Your task to perform on an android device: Open the settings Image 0: 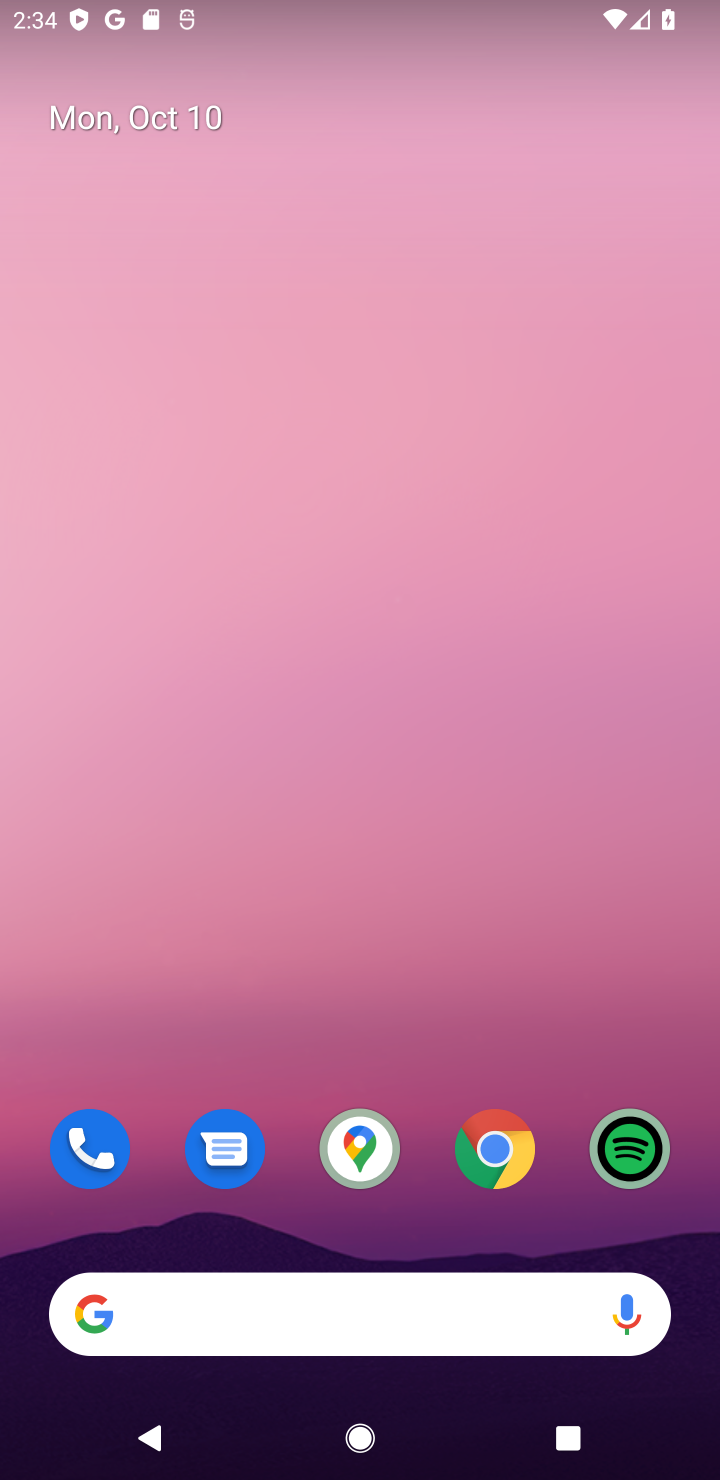
Step 0: drag from (415, 1222) to (363, 9)
Your task to perform on an android device: Open the settings Image 1: 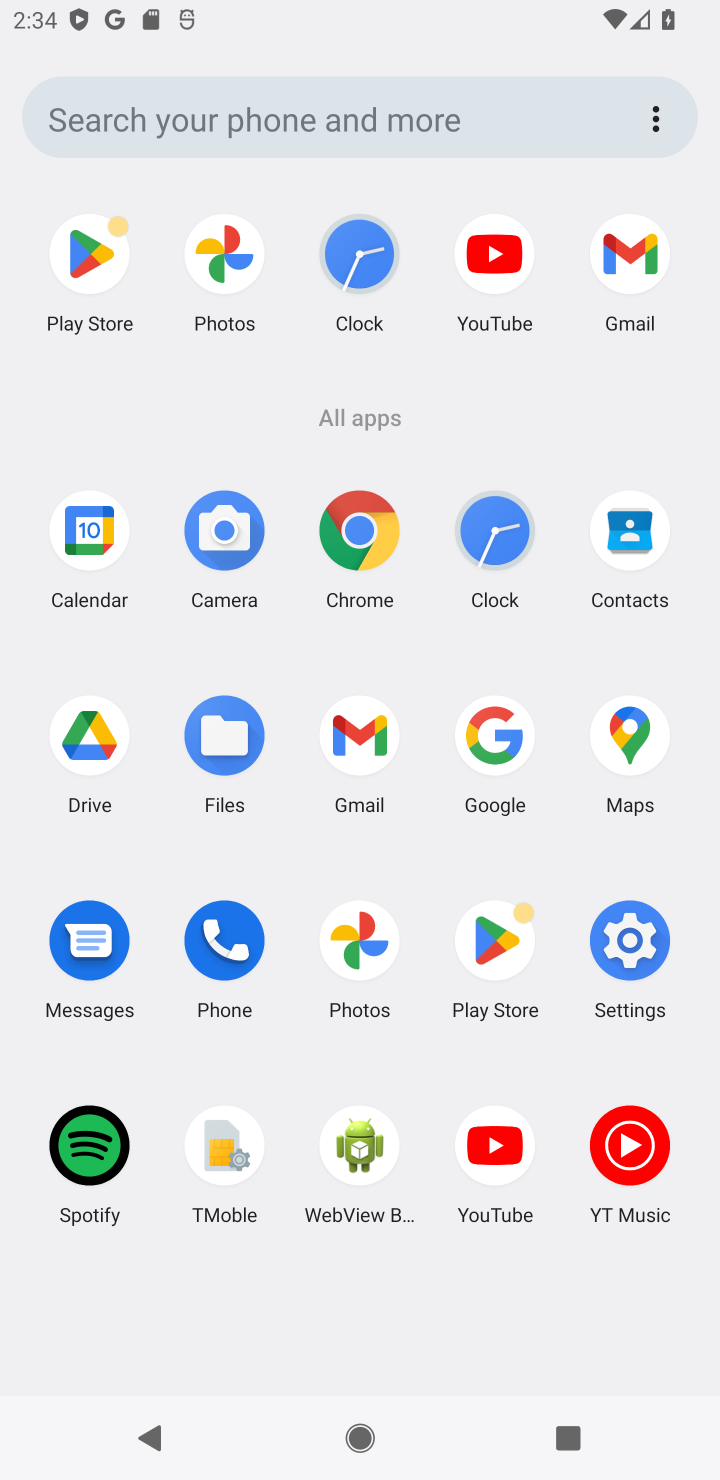
Step 1: click (636, 1022)
Your task to perform on an android device: Open the settings Image 2: 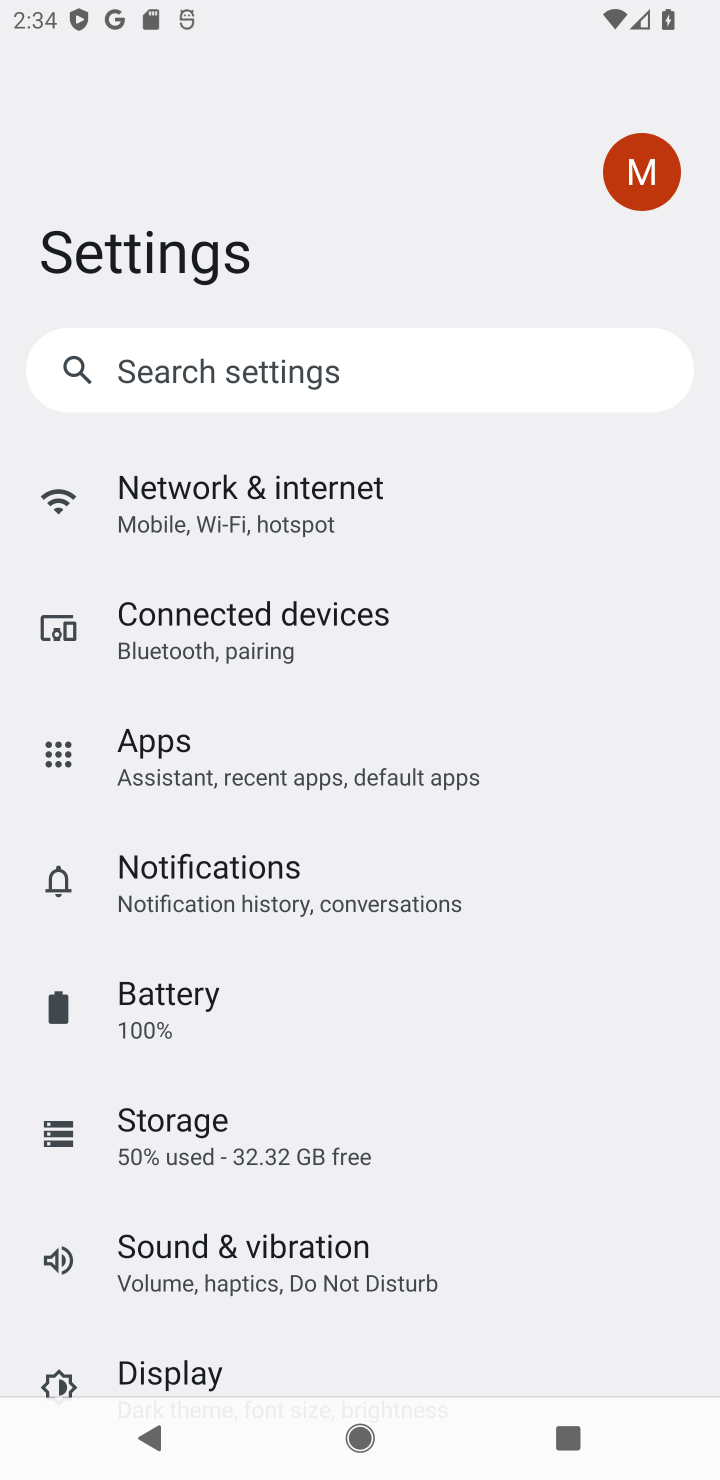
Step 2: task complete